Your task to perform on an android device: open chrome privacy settings Image 0: 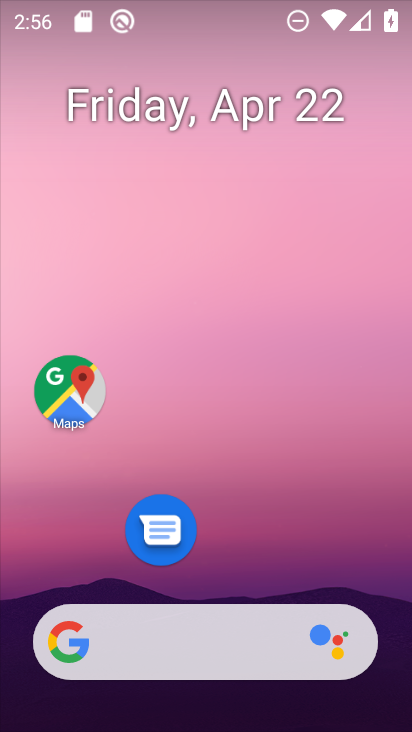
Step 0: drag from (254, 558) to (274, 75)
Your task to perform on an android device: open chrome privacy settings Image 1: 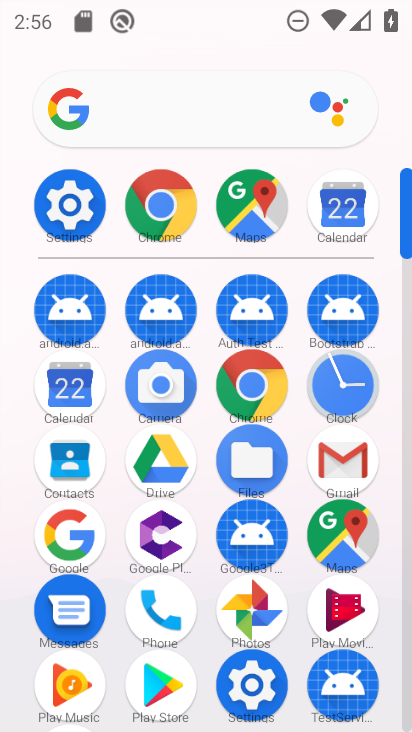
Step 1: click (158, 205)
Your task to perform on an android device: open chrome privacy settings Image 2: 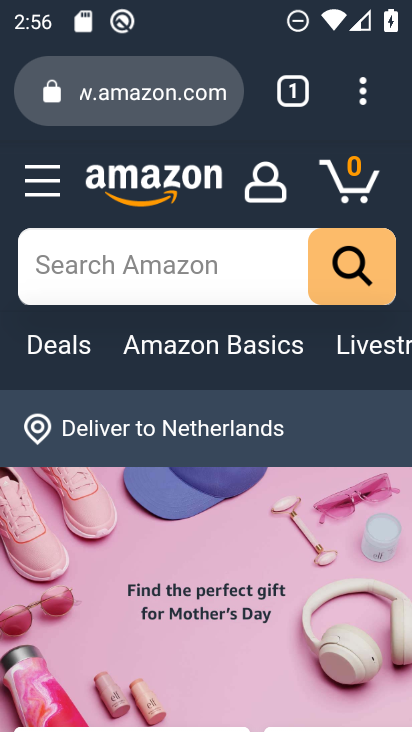
Step 2: click (359, 106)
Your task to perform on an android device: open chrome privacy settings Image 3: 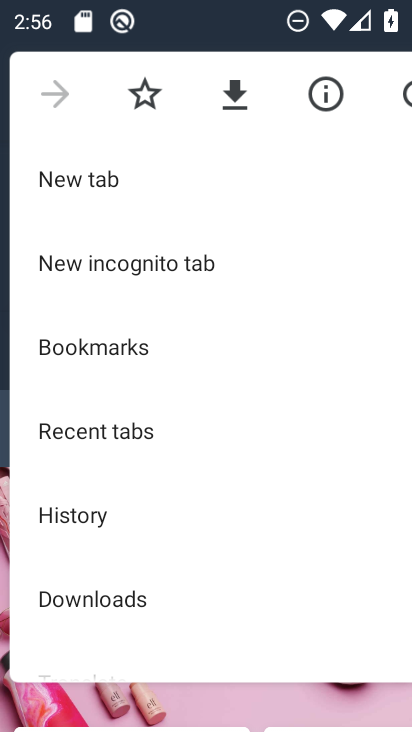
Step 3: drag from (187, 521) to (162, 185)
Your task to perform on an android device: open chrome privacy settings Image 4: 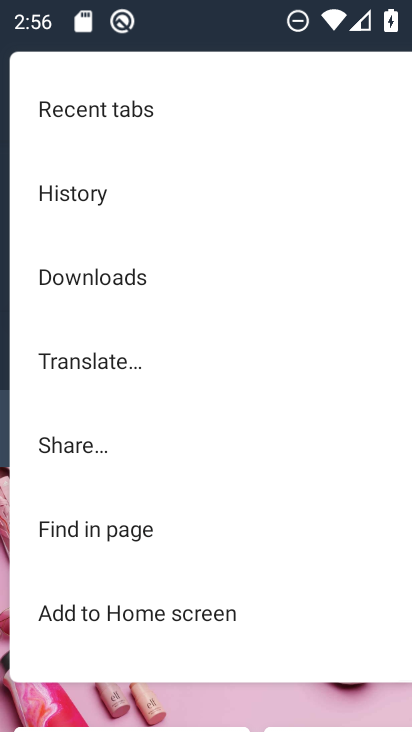
Step 4: drag from (143, 421) to (121, 60)
Your task to perform on an android device: open chrome privacy settings Image 5: 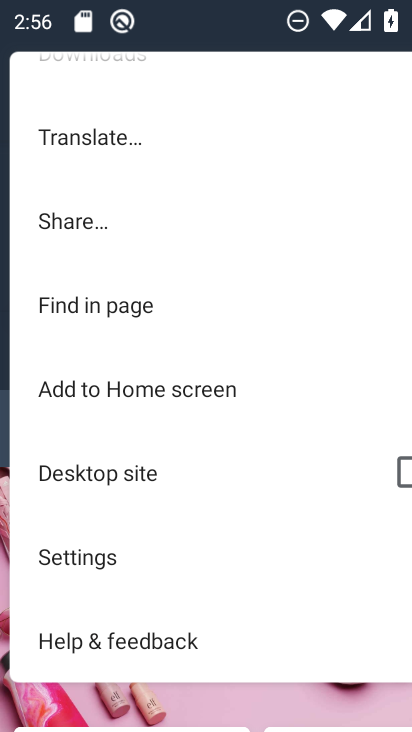
Step 5: click (82, 559)
Your task to perform on an android device: open chrome privacy settings Image 6: 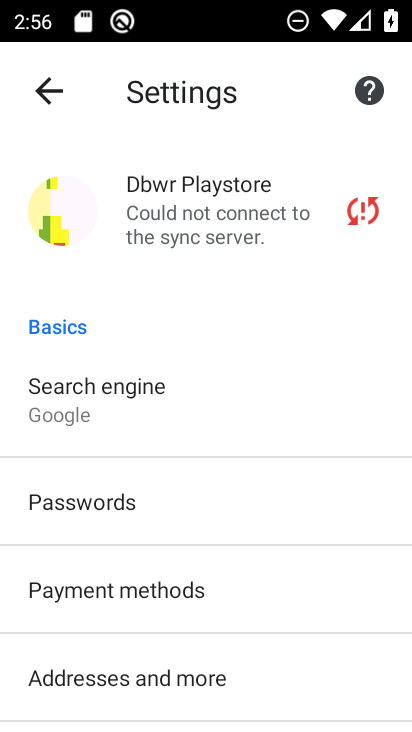
Step 6: drag from (113, 564) to (93, 261)
Your task to perform on an android device: open chrome privacy settings Image 7: 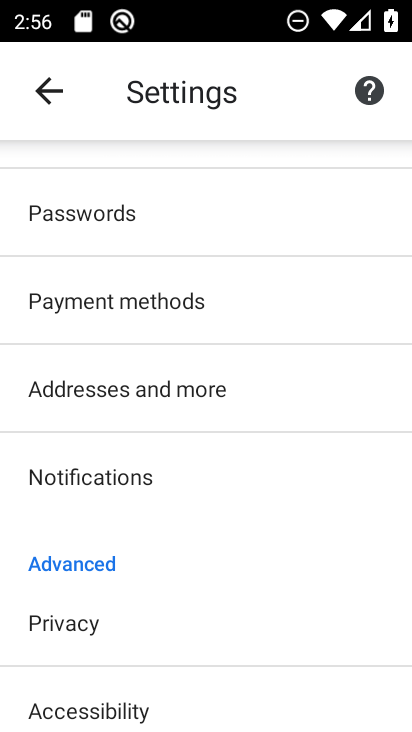
Step 7: click (56, 615)
Your task to perform on an android device: open chrome privacy settings Image 8: 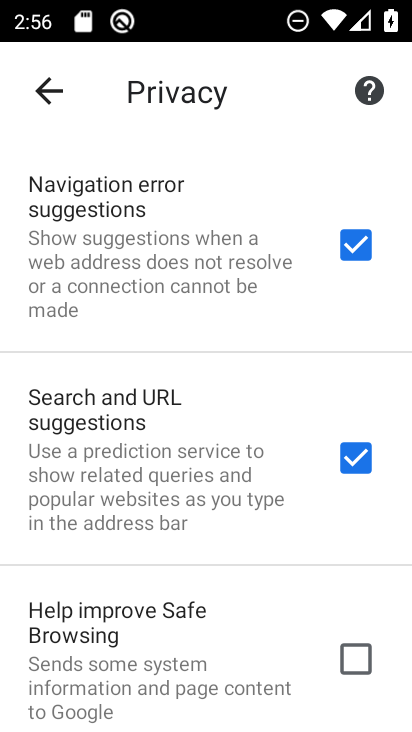
Step 8: task complete